Your task to perform on an android device: Go to location settings Image 0: 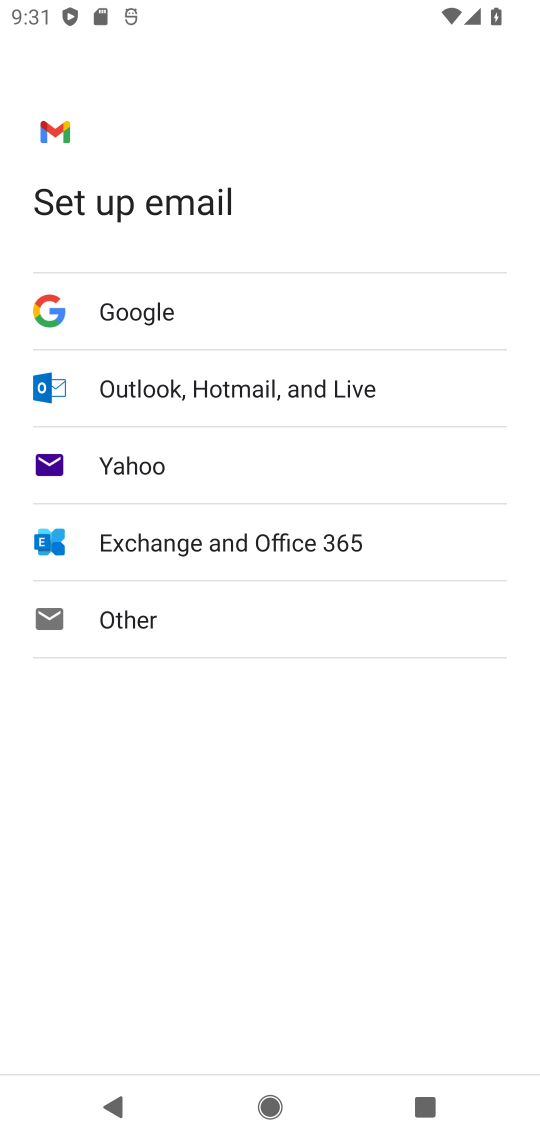
Step 0: press home button
Your task to perform on an android device: Go to location settings Image 1: 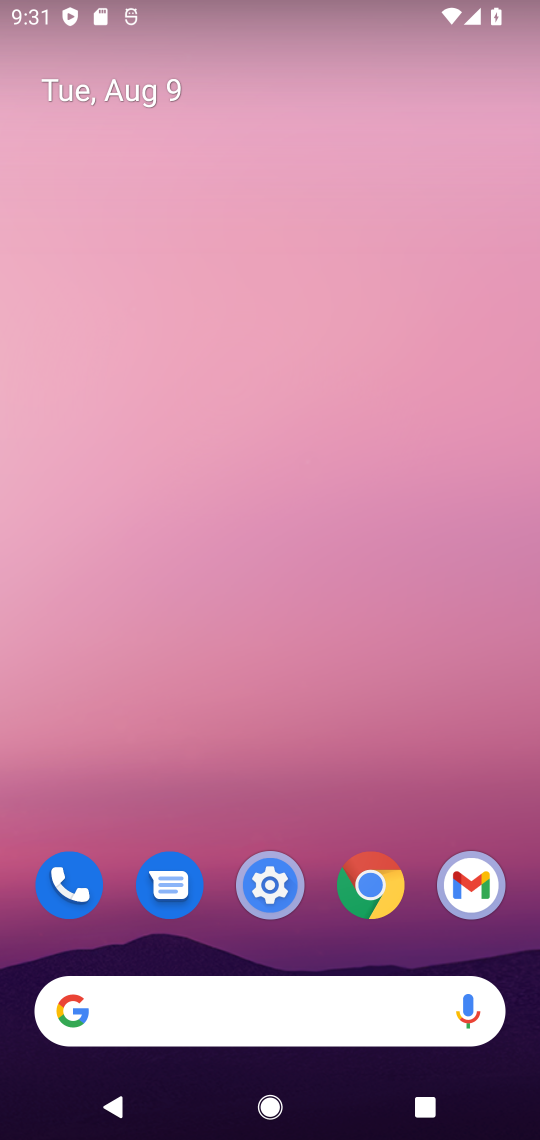
Step 1: drag from (318, 942) to (370, 204)
Your task to perform on an android device: Go to location settings Image 2: 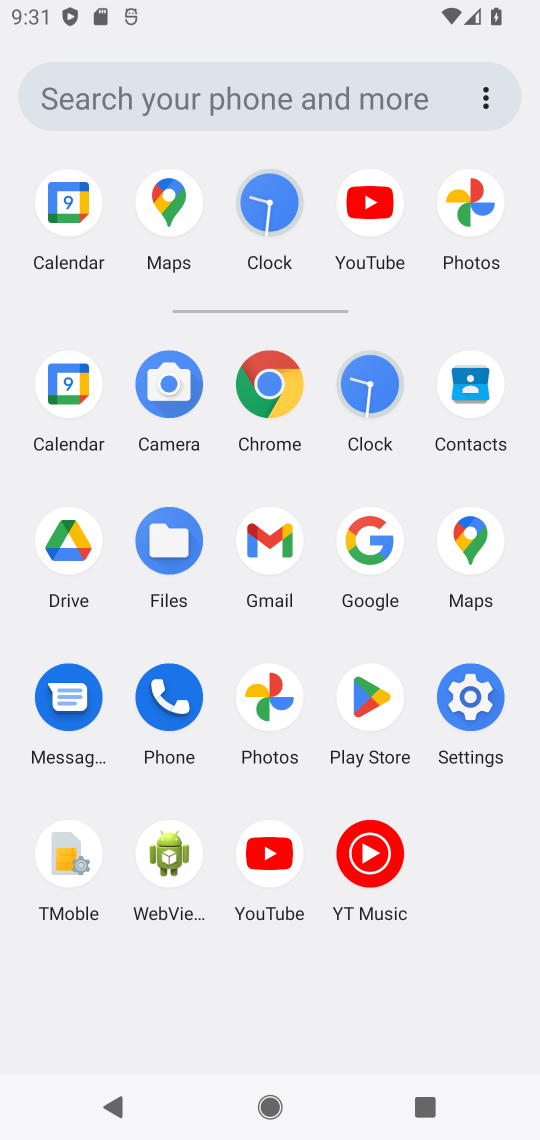
Step 2: click (471, 691)
Your task to perform on an android device: Go to location settings Image 3: 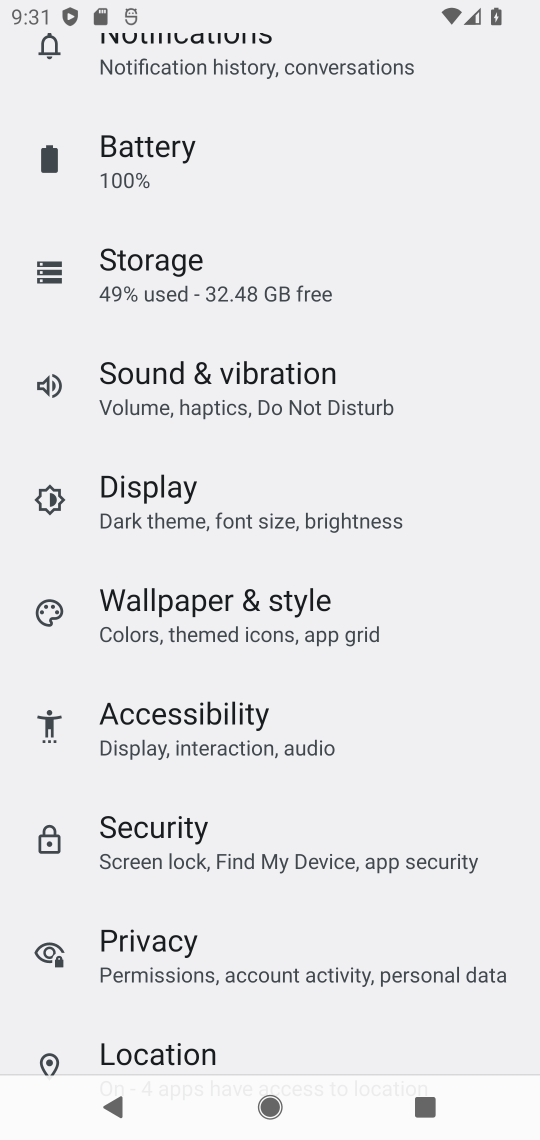
Step 3: click (255, 1047)
Your task to perform on an android device: Go to location settings Image 4: 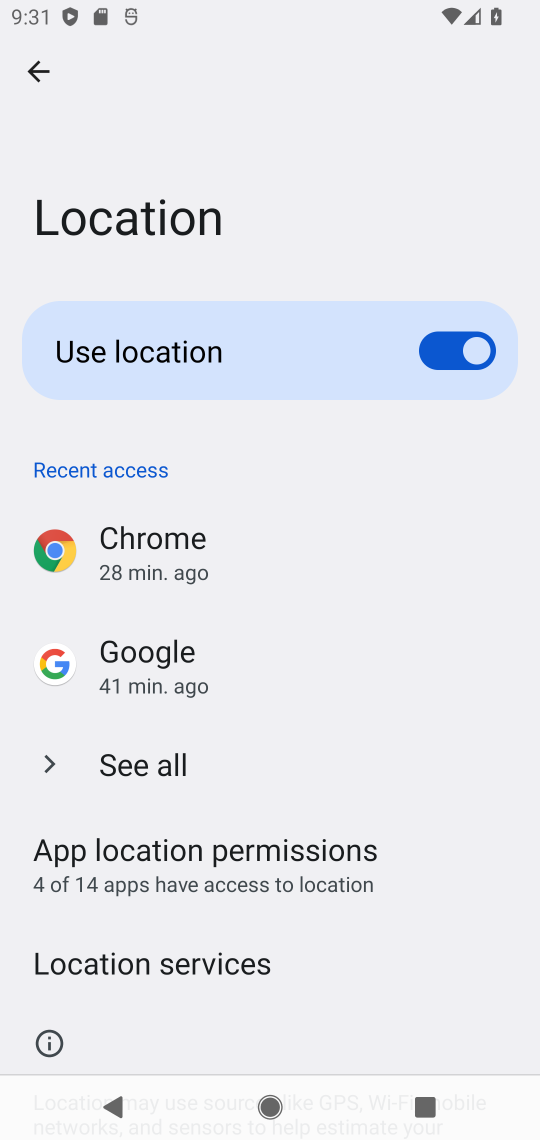
Step 4: click (306, 957)
Your task to perform on an android device: Go to location settings Image 5: 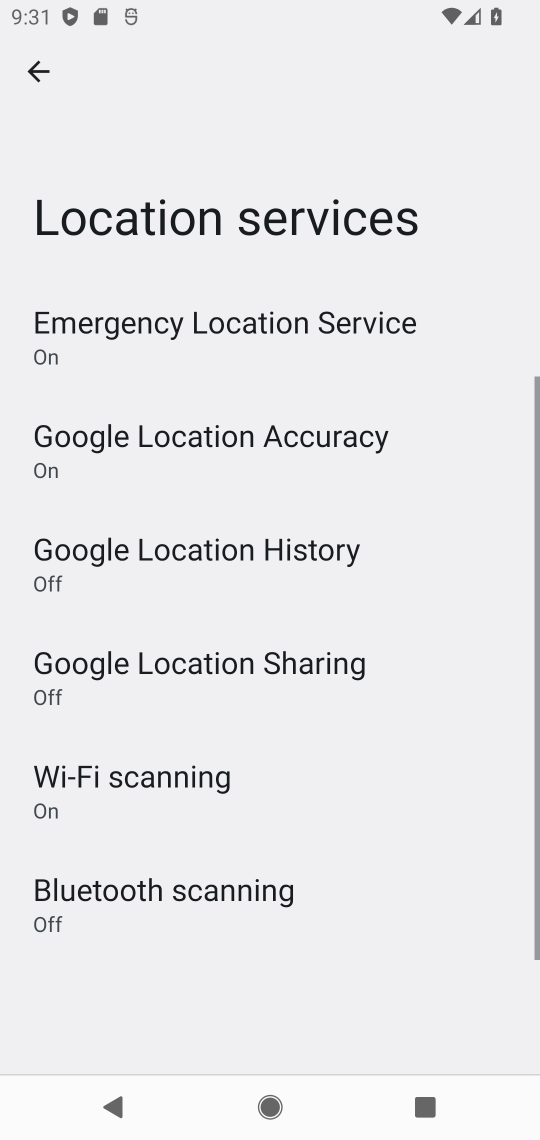
Step 5: task complete